Your task to perform on an android device: Open battery settings Image 0: 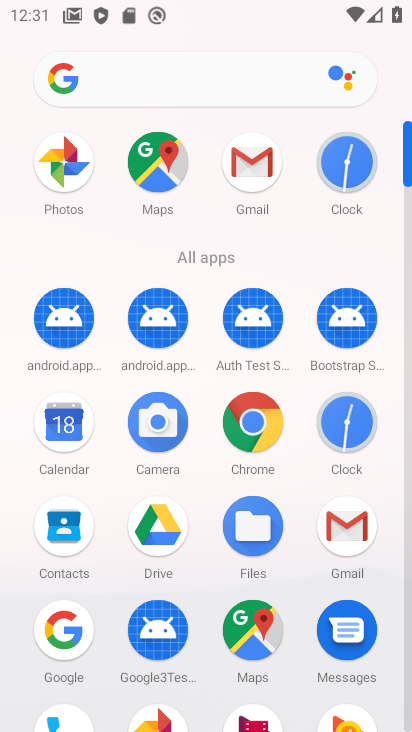
Step 0: press home button
Your task to perform on an android device: Open battery settings Image 1: 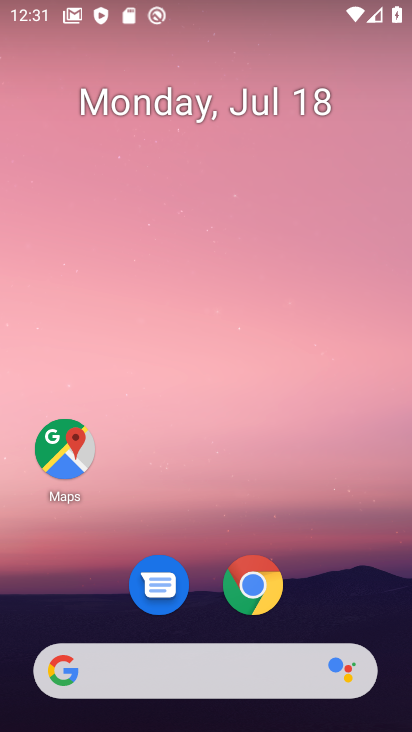
Step 1: drag from (244, 678) to (339, 162)
Your task to perform on an android device: Open battery settings Image 2: 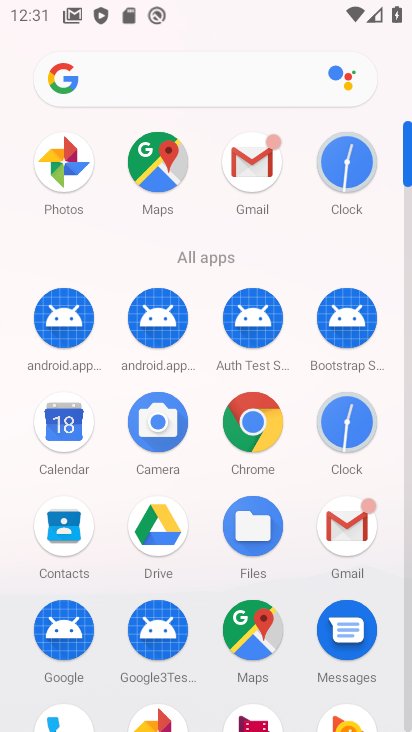
Step 2: drag from (201, 598) to (339, 239)
Your task to perform on an android device: Open battery settings Image 3: 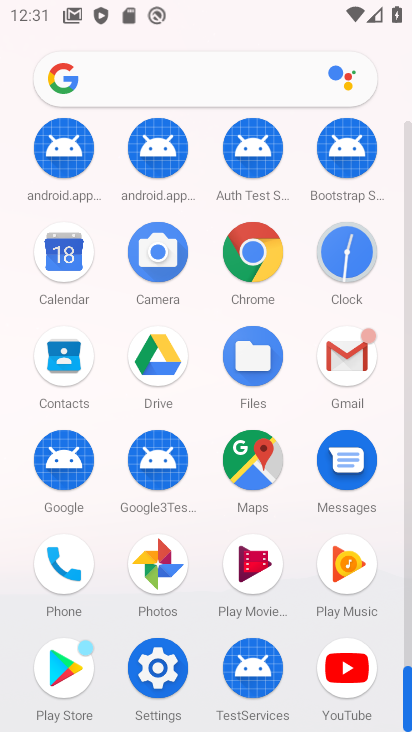
Step 3: click (153, 637)
Your task to perform on an android device: Open battery settings Image 4: 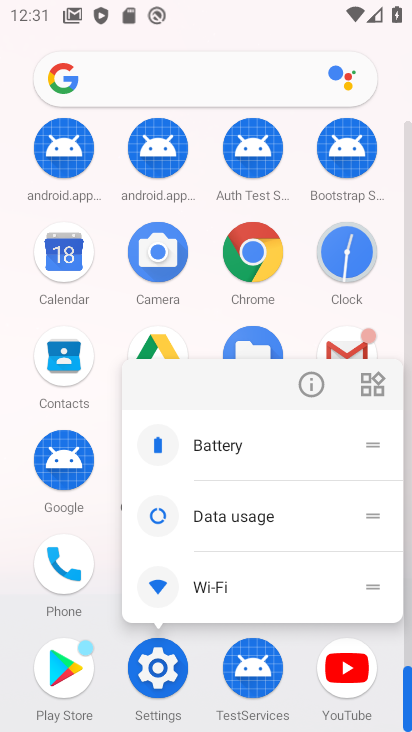
Step 4: click (147, 677)
Your task to perform on an android device: Open battery settings Image 5: 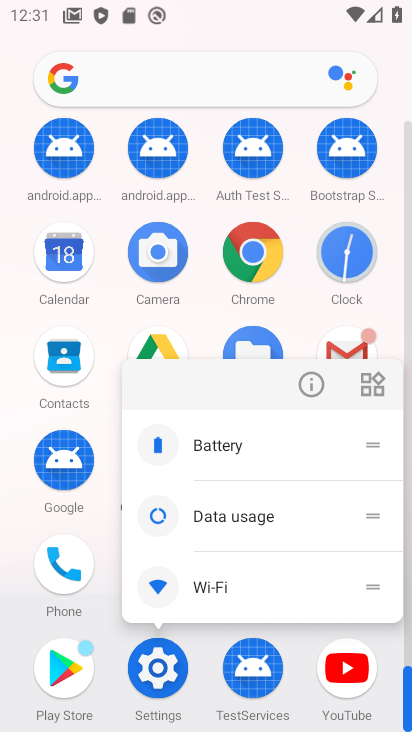
Step 5: click (152, 672)
Your task to perform on an android device: Open battery settings Image 6: 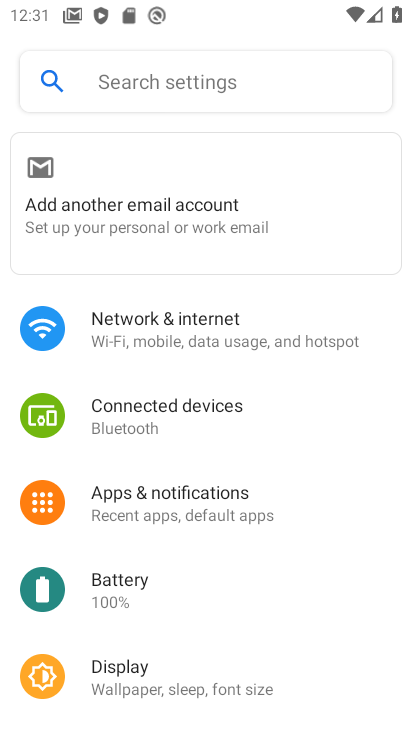
Step 6: click (142, 594)
Your task to perform on an android device: Open battery settings Image 7: 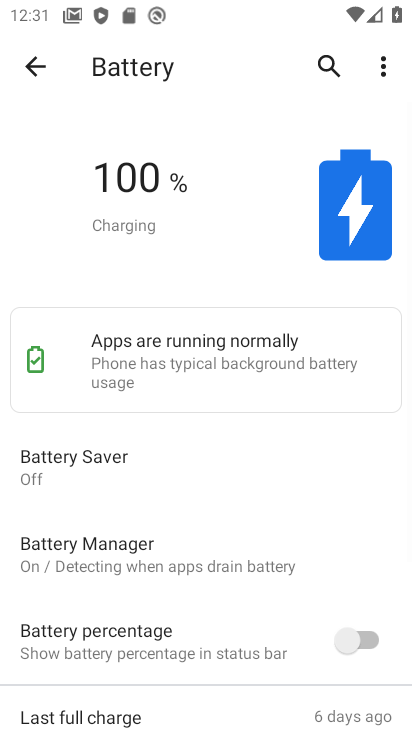
Step 7: task complete